Your task to perform on an android device: Add beats solo 3 to the cart on walmart, then select checkout. Image 0: 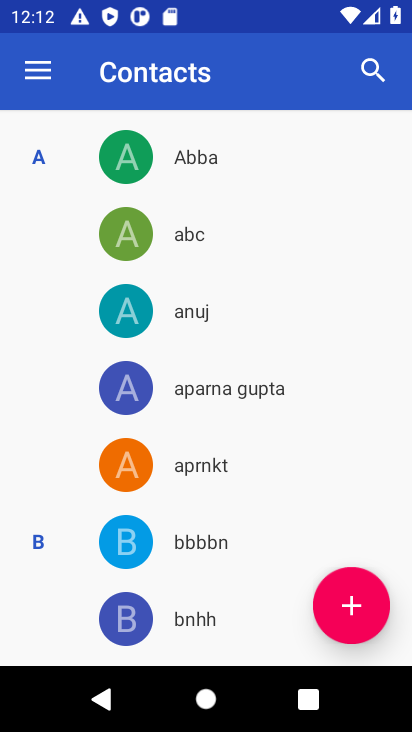
Step 0: press home button
Your task to perform on an android device: Add beats solo 3 to the cart on walmart, then select checkout. Image 1: 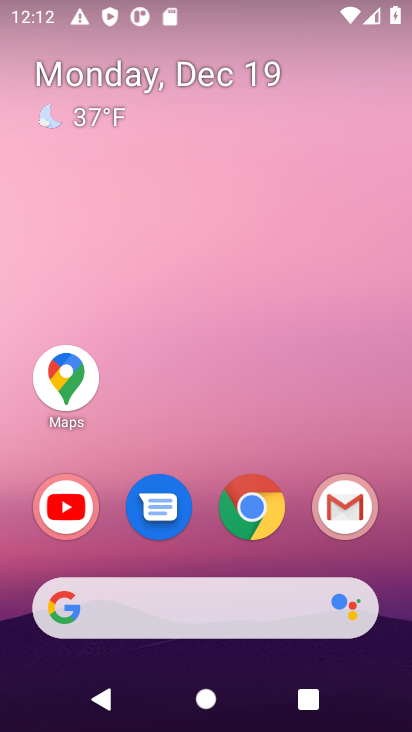
Step 1: click (258, 506)
Your task to perform on an android device: Add beats solo 3 to the cart on walmart, then select checkout. Image 2: 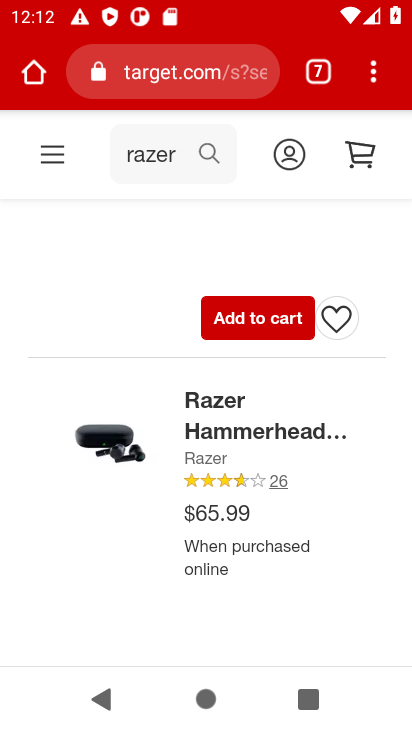
Step 2: click (167, 75)
Your task to perform on an android device: Add beats solo 3 to the cart on walmart, then select checkout. Image 3: 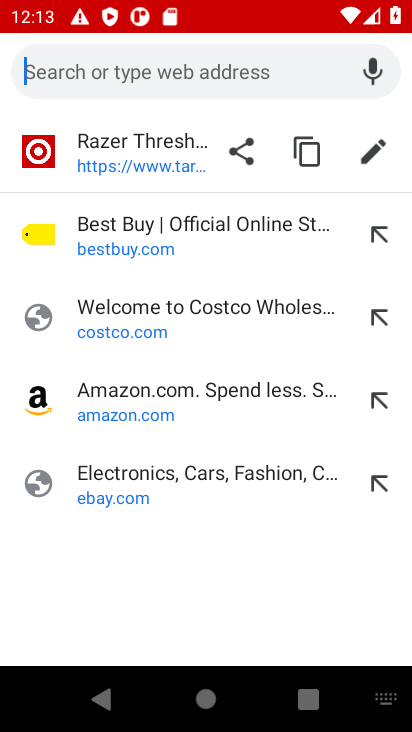
Step 3: type "walmart.com"
Your task to perform on an android device: Add beats solo 3 to the cart on walmart, then select checkout. Image 4: 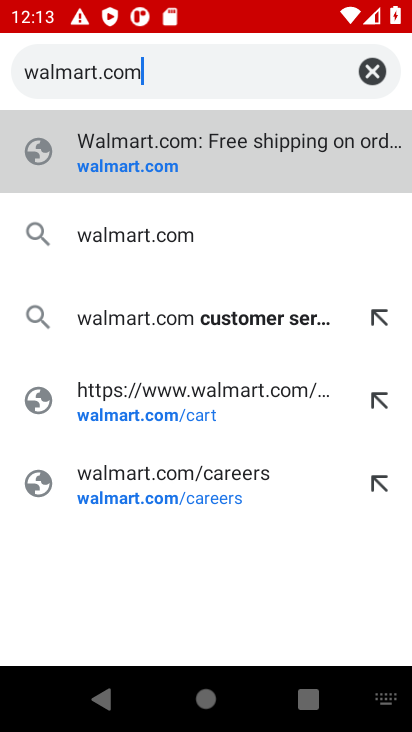
Step 4: click (127, 166)
Your task to perform on an android device: Add beats solo 3 to the cart on walmart, then select checkout. Image 5: 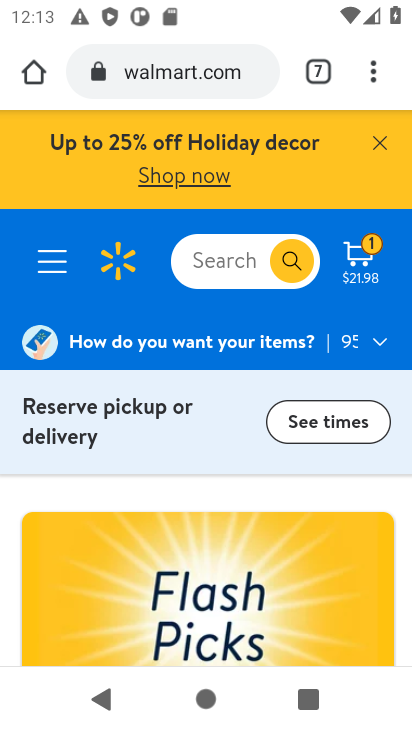
Step 5: click (201, 268)
Your task to perform on an android device: Add beats solo 3 to the cart on walmart, then select checkout. Image 6: 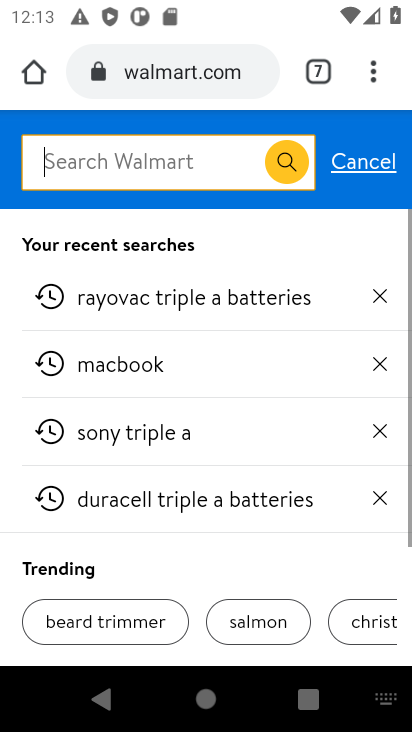
Step 6: type "beats solo 3"
Your task to perform on an android device: Add beats solo 3 to the cart on walmart, then select checkout. Image 7: 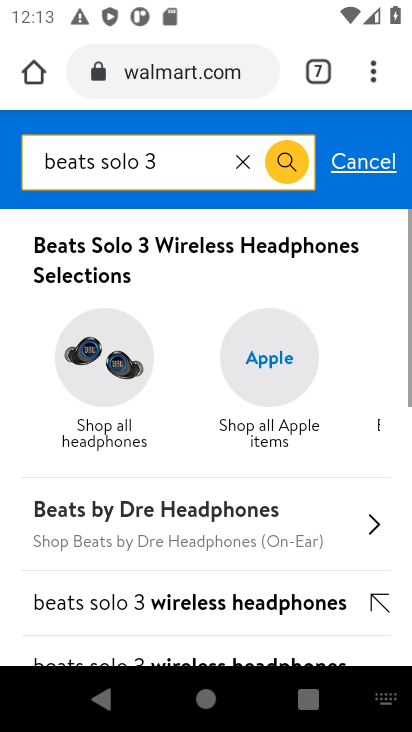
Step 7: drag from (169, 428) to (175, 175)
Your task to perform on an android device: Add beats solo 3 to the cart on walmart, then select checkout. Image 8: 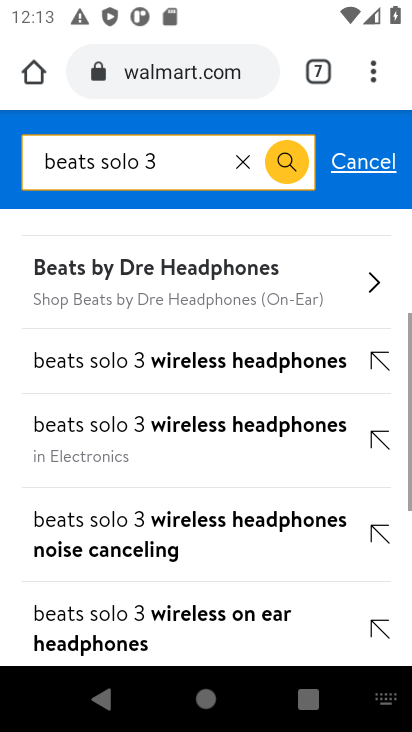
Step 8: click (284, 166)
Your task to perform on an android device: Add beats solo 3 to the cart on walmart, then select checkout. Image 9: 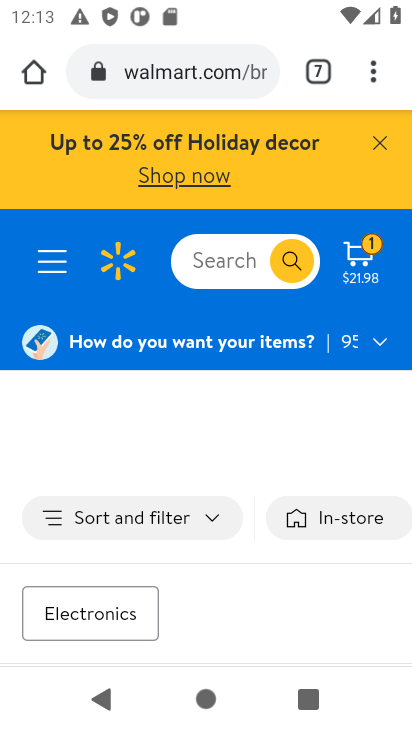
Step 9: drag from (192, 444) to (201, 141)
Your task to perform on an android device: Add beats solo 3 to the cart on walmart, then select checkout. Image 10: 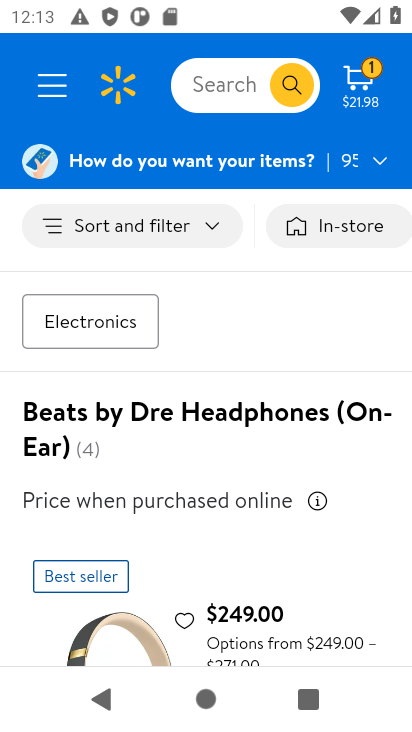
Step 10: drag from (189, 475) to (189, 187)
Your task to perform on an android device: Add beats solo 3 to the cart on walmart, then select checkout. Image 11: 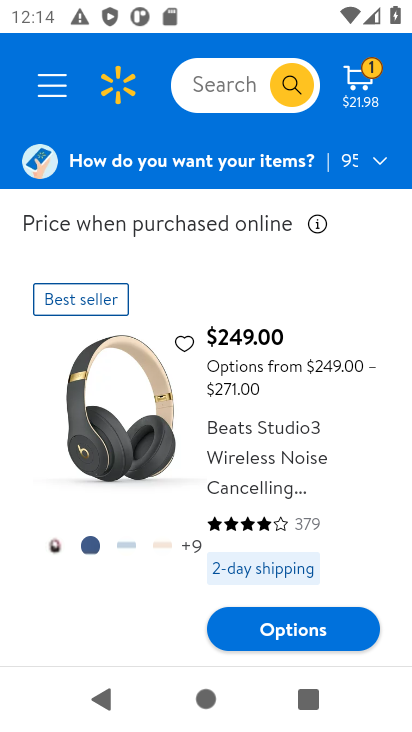
Step 11: drag from (150, 486) to (152, 197)
Your task to perform on an android device: Add beats solo 3 to the cart on walmart, then select checkout. Image 12: 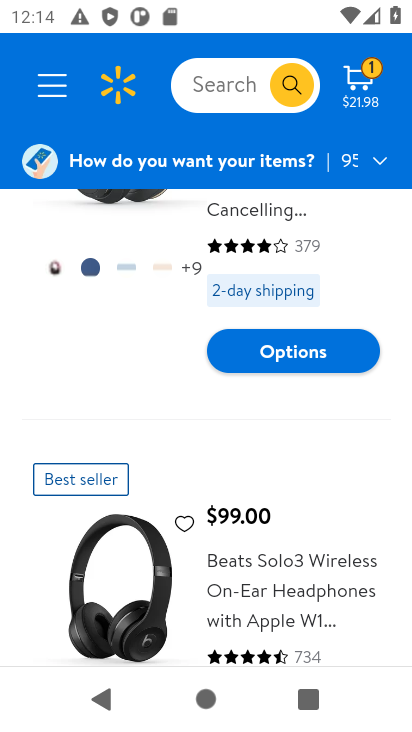
Step 12: drag from (142, 487) to (142, 266)
Your task to perform on an android device: Add beats solo 3 to the cart on walmart, then select checkout. Image 13: 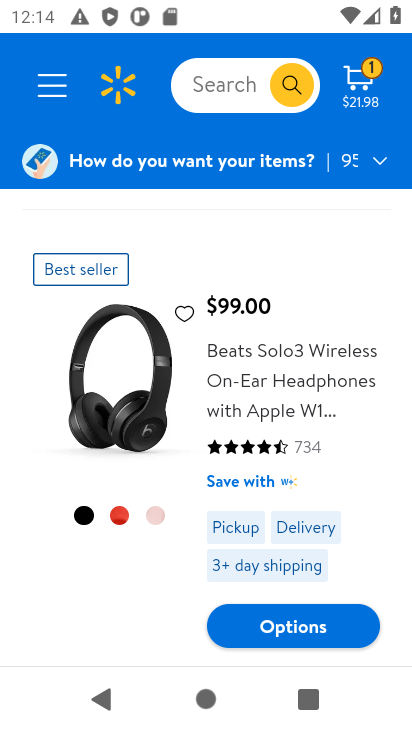
Step 13: click (275, 397)
Your task to perform on an android device: Add beats solo 3 to the cart on walmart, then select checkout. Image 14: 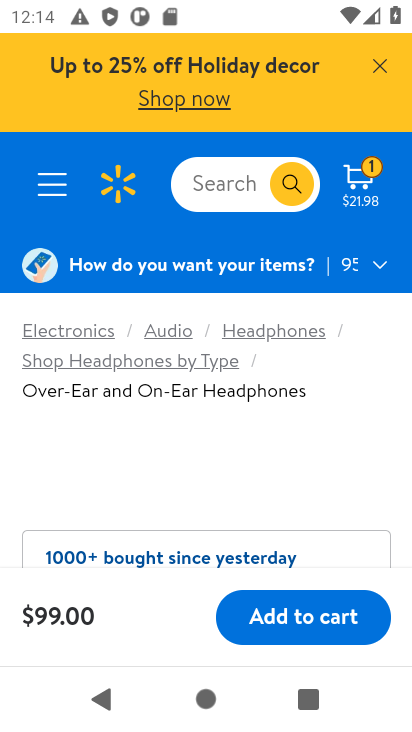
Step 14: drag from (224, 462) to (217, 300)
Your task to perform on an android device: Add beats solo 3 to the cart on walmart, then select checkout. Image 15: 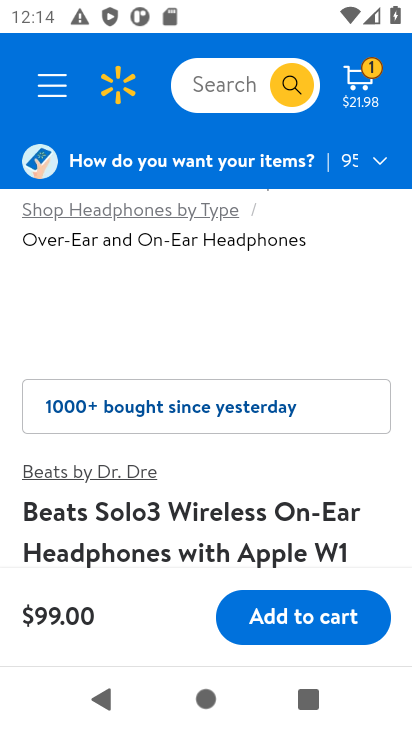
Step 15: drag from (227, 514) to (220, 305)
Your task to perform on an android device: Add beats solo 3 to the cart on walmart, then select checkout. Image 16: 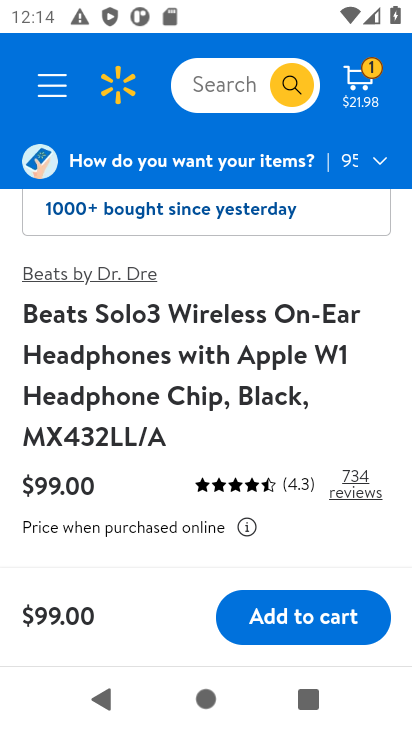
Step 16: click (295, 618)
Your task to perform on an android device: Add beats solo 3 to the cart on walmart, then select checkout. Image 17: 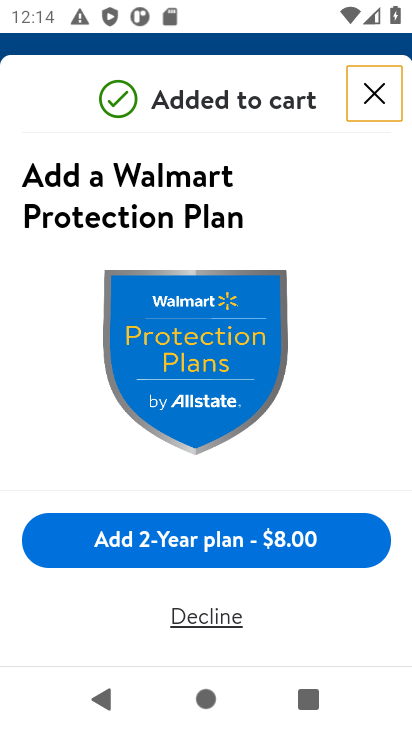
Step 17: click (369, 98)
Your task to perform on an android device: Add beats solo 3 to the cart on walmart, then select checkout. Image 18: 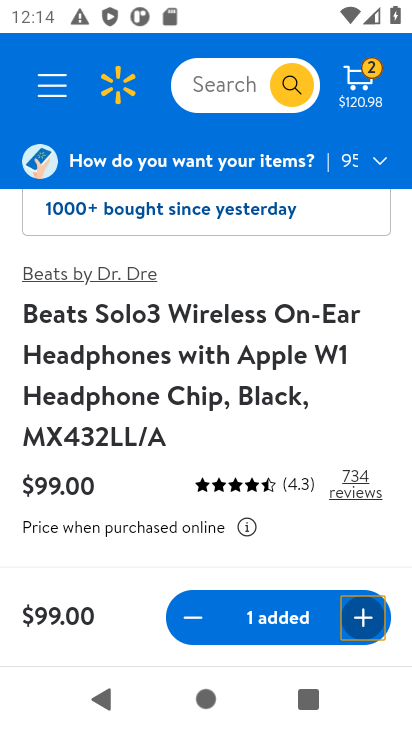
Step 18: click (365, 83)
Your task to perform on an android device: Add beats solo 3 to the cart on walmart, then select checkout. Image 19: 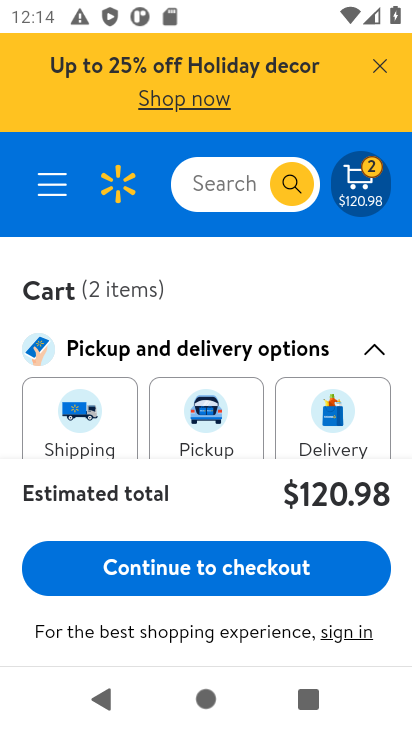
Step 19: click (193, 568)
Your task to perform on an android device: Add beats solo 3 to the cart on walmart, then select checkout. Image 20: 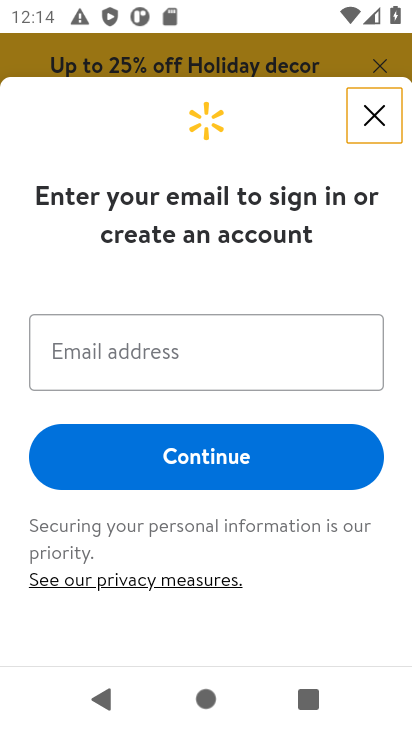
Step 20: task complete